Your task to perform on an android device: check battery use Image 0: 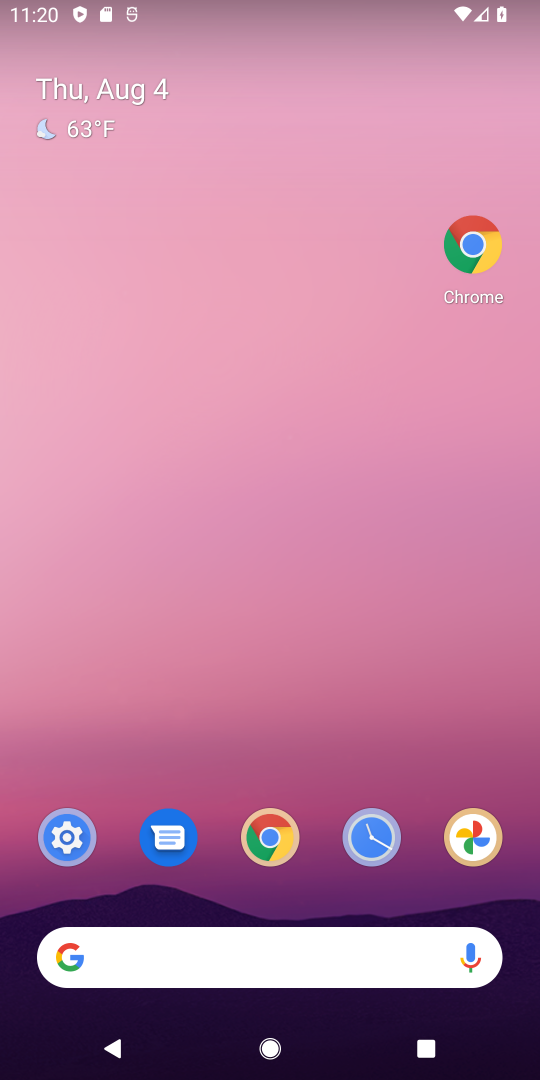
Step 0: press home button
Your task to perform on an android device: check battery use Image 1: 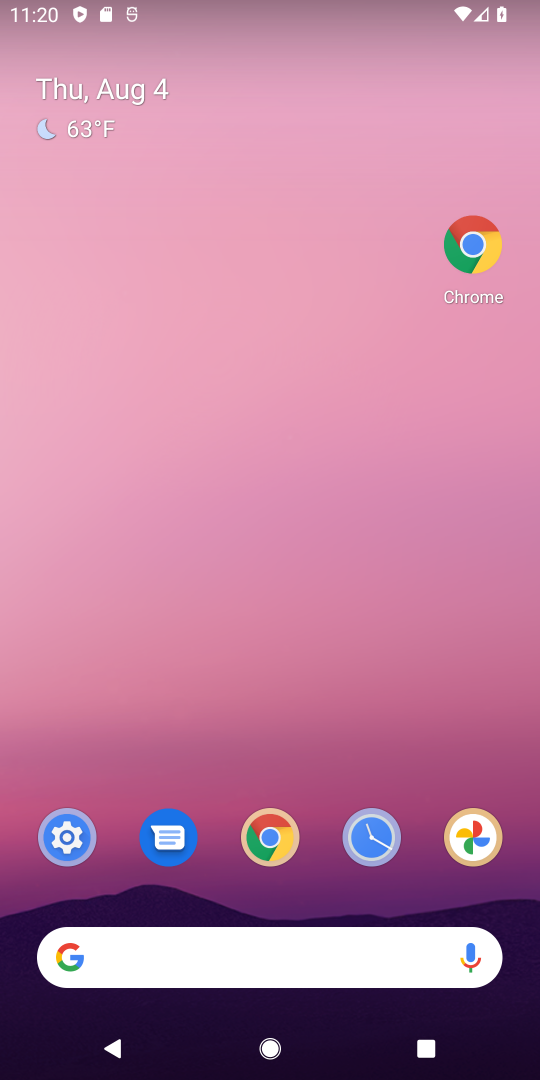
Step 1: drag from (325, 886) to (352, 40)
Your task to perform on an android device: check battery use Image 2: 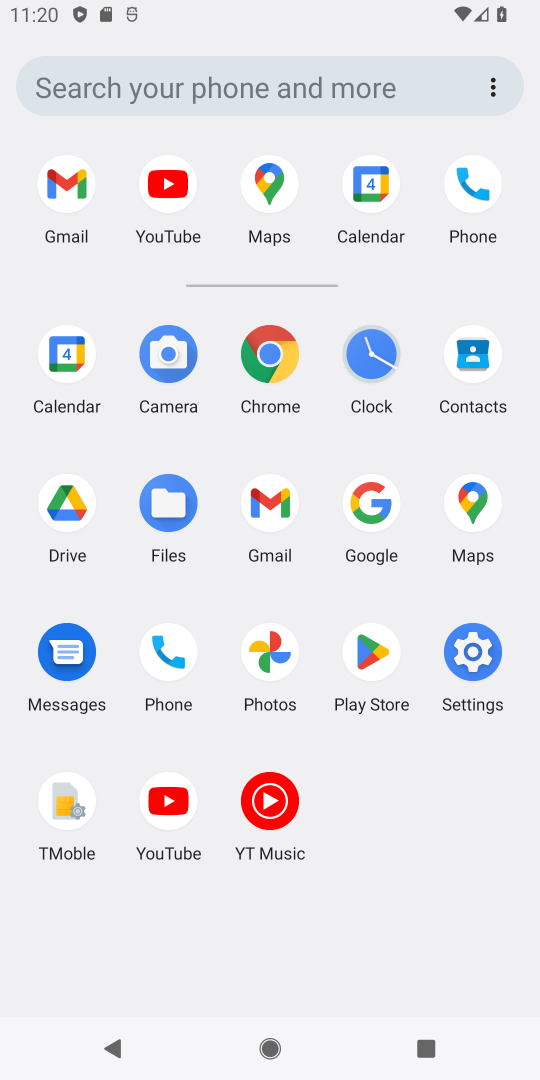
Step 2: click (469, 650)
Your task to perform on an android device: check battery use Image 3: 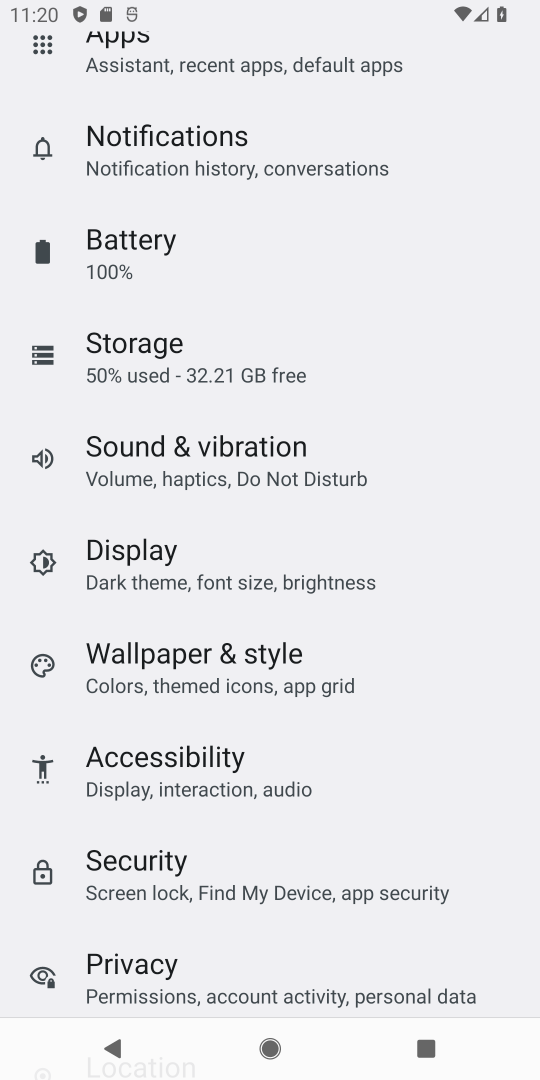
Step 3: click (210, 239)
Your task to perform on an android device: check battery use Image 4: 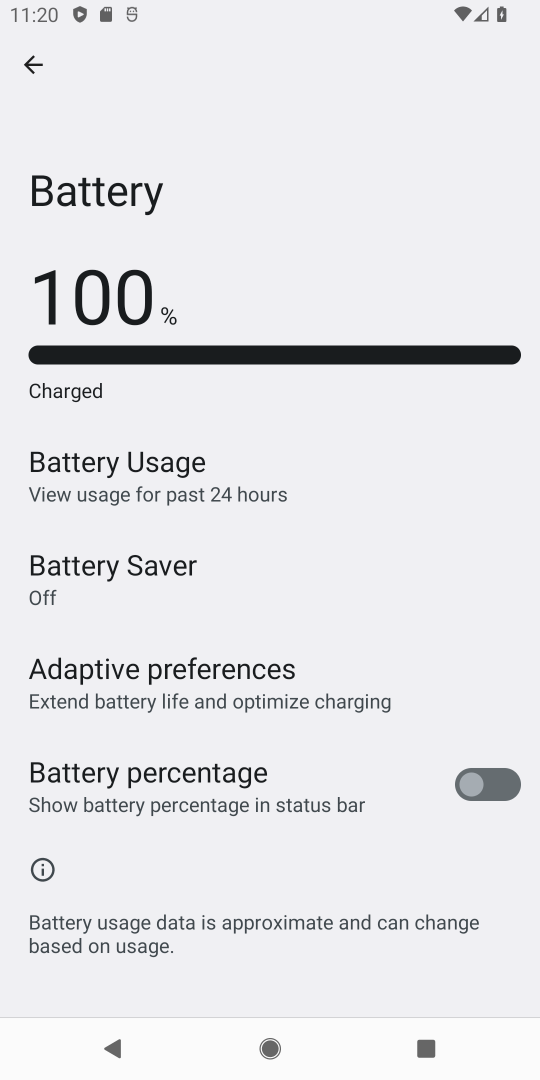
Step 4: click (193, 476)
Your task to perform on an android device: check battery use Image 5: 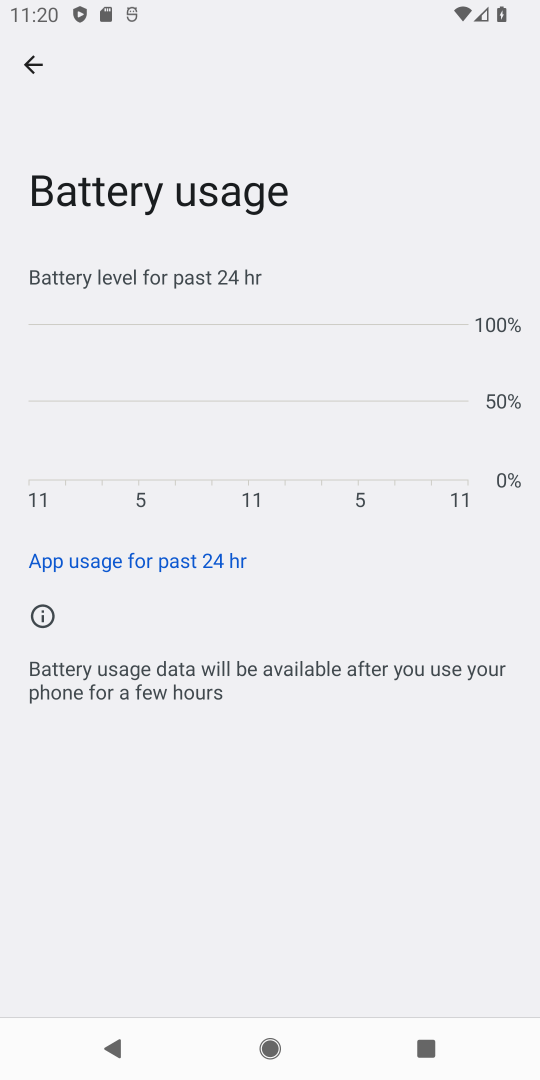
Step 5: task complete